Your task to perform on an android device: delete a single message in the gmail app Image 0: 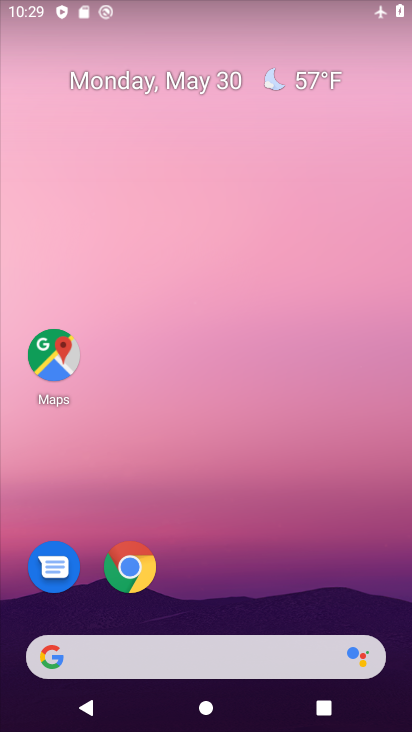
Step 0: drag from (192, 610) to (230, 264)
Your task to perform on an android device: delete a single message in the gmail app Image 1: 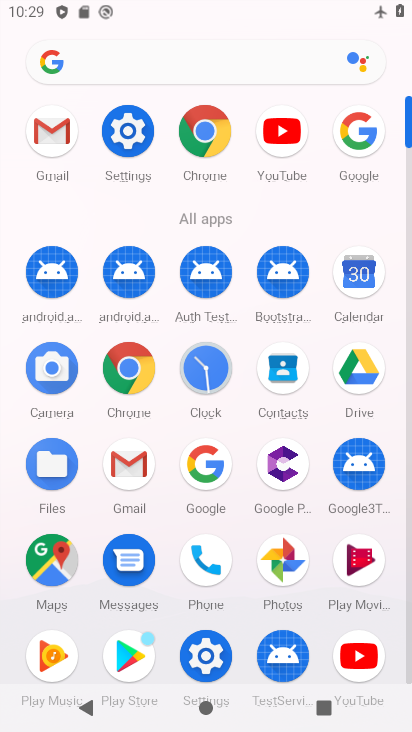
Step 1: click (52, 139)
Your task to perform on an android device: delete a single message in the gmail app Image 2: 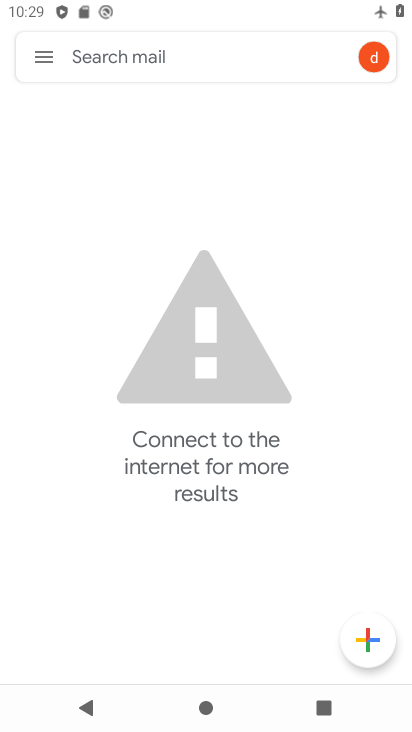
Step 2: click (41, 55)
Your task to perform on an android device: delete a single message in the gmail app Image 3: 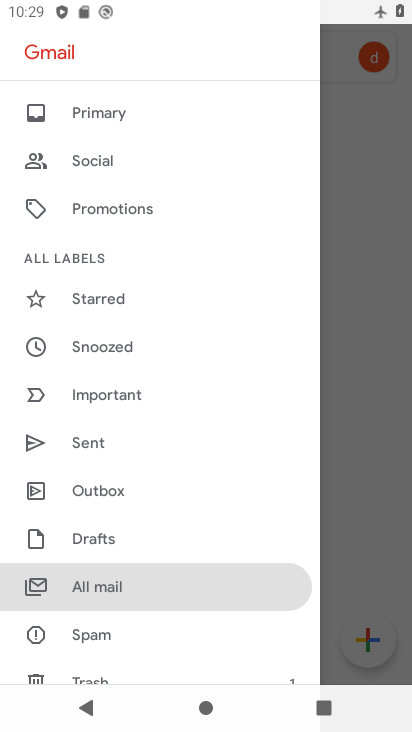
Step 3: click (125, 572)
Your task to perform on an android device: delete a single message in the gmail app Image 4: 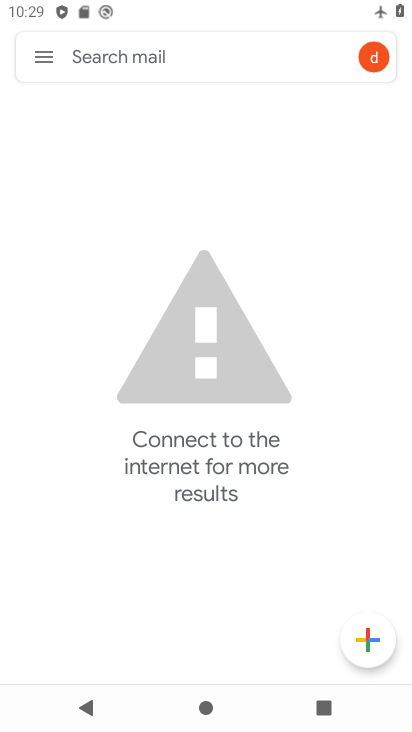
Step 4: task complete